Your task to perform on an android device: Open Yahoo.com Image 0: 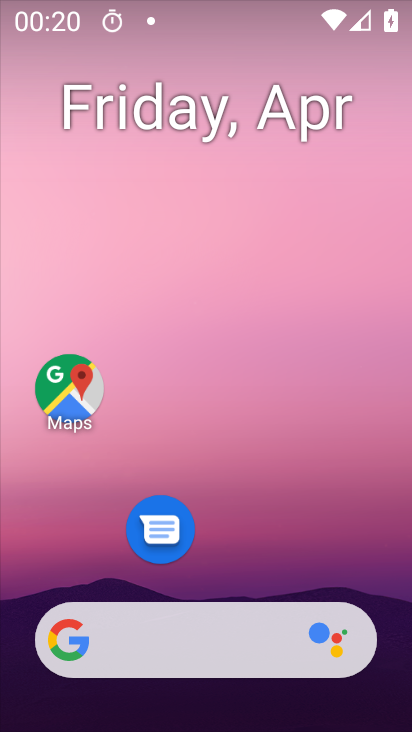
Step 0: drag from (190, 569) to (239, 17)
Your task to perform on an android device: Open Yahoo.com Image 1: 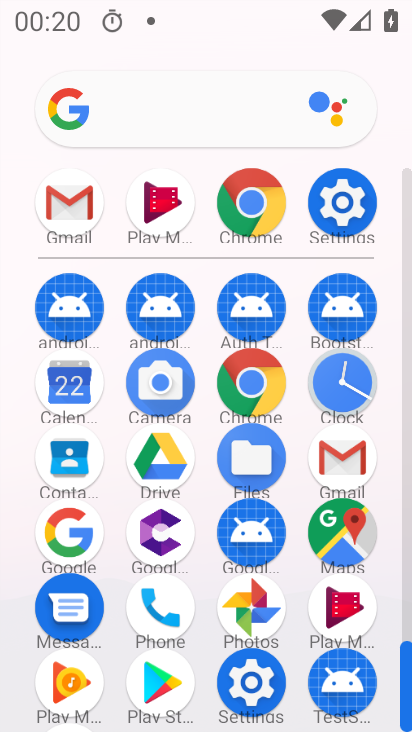
Step 1: click (252, 223)
Your task to perform on an android device: Open Yahoo.com Image 2: 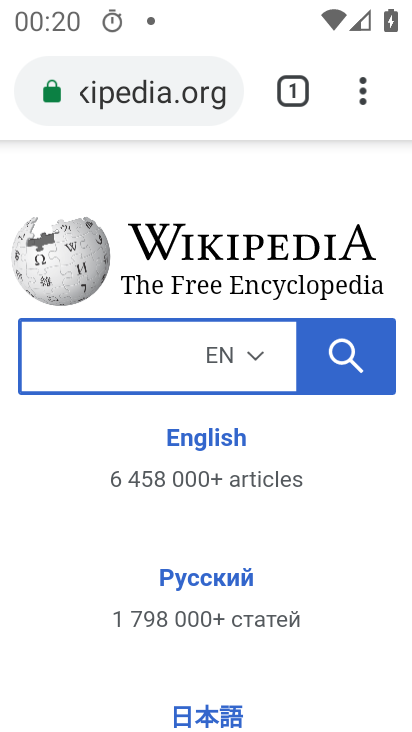
Step 2: click (191, 102)
Your task to perform on an android device: Open Yahoo.com Image 3: 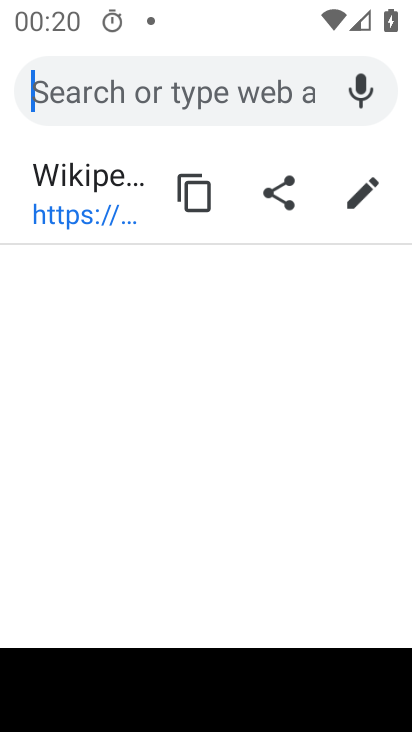
Step 3: type "yahoo.com"
Your task to perform on an android device: Open Yahoo.com Image 4: 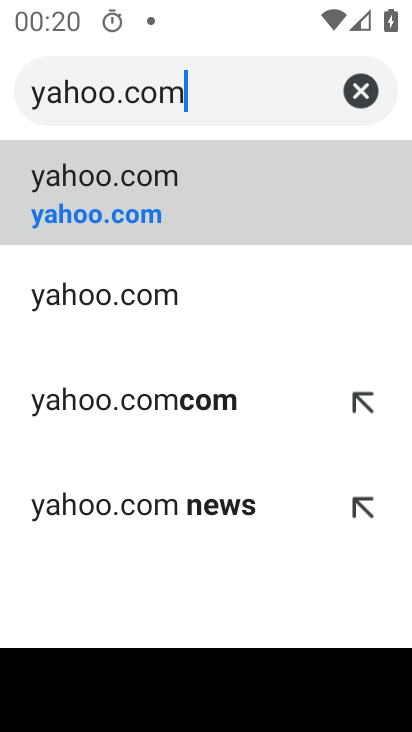
Step 4: click (206, 225)
Your task to perform on an android device: Open Yahoo.com Image 5: 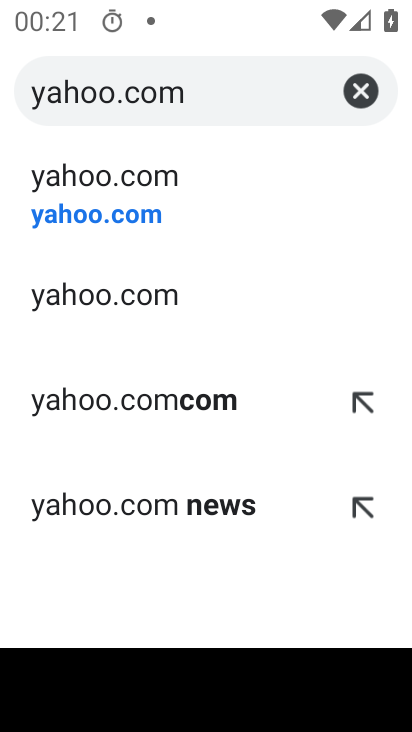
Step 5: click (147, 209)
Your task to perform on an android device: Open Yahoo.com Image 6: 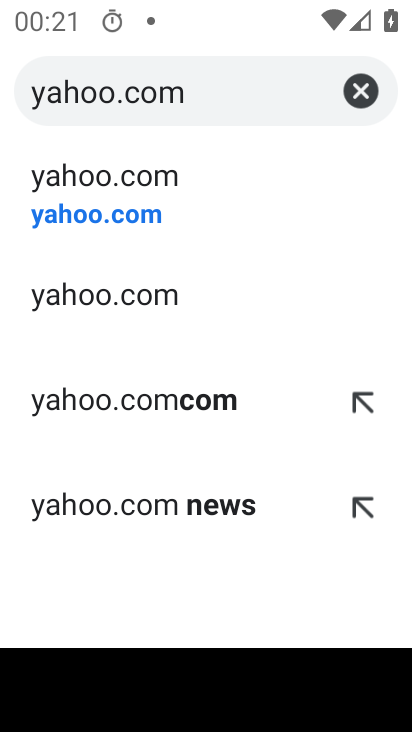
Step 6: click (146, 215)
Your task to perform on an android device: Open Yahoo.com Image 7: 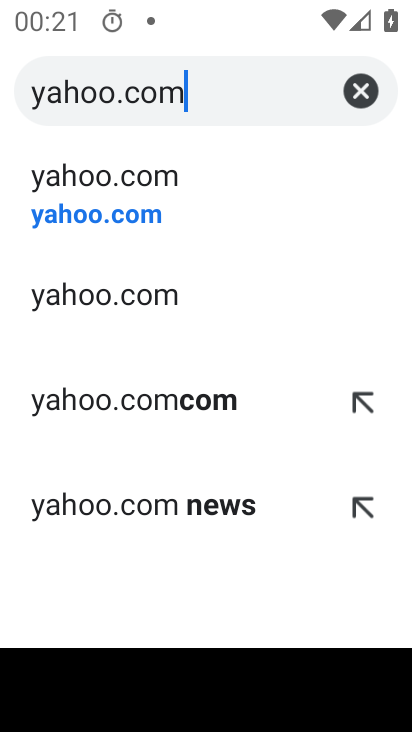
Step 7: click (149, 215)
Your task to perform on an android device: Open Yahoo.com Image 8: 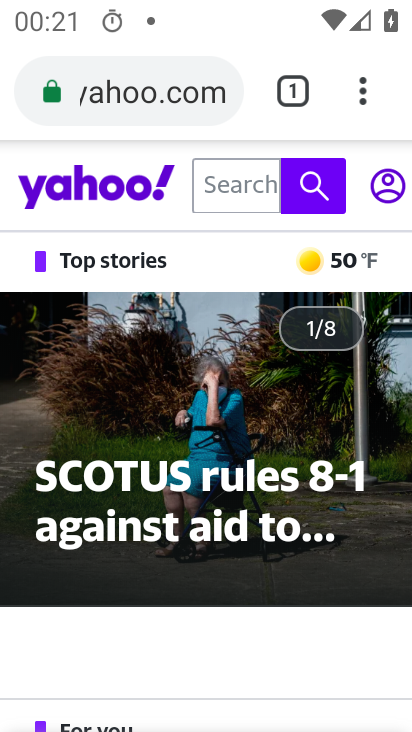
Step 8: task complete